Your task to perform on an android device: What's the weather going to be this weekend? Image 0: 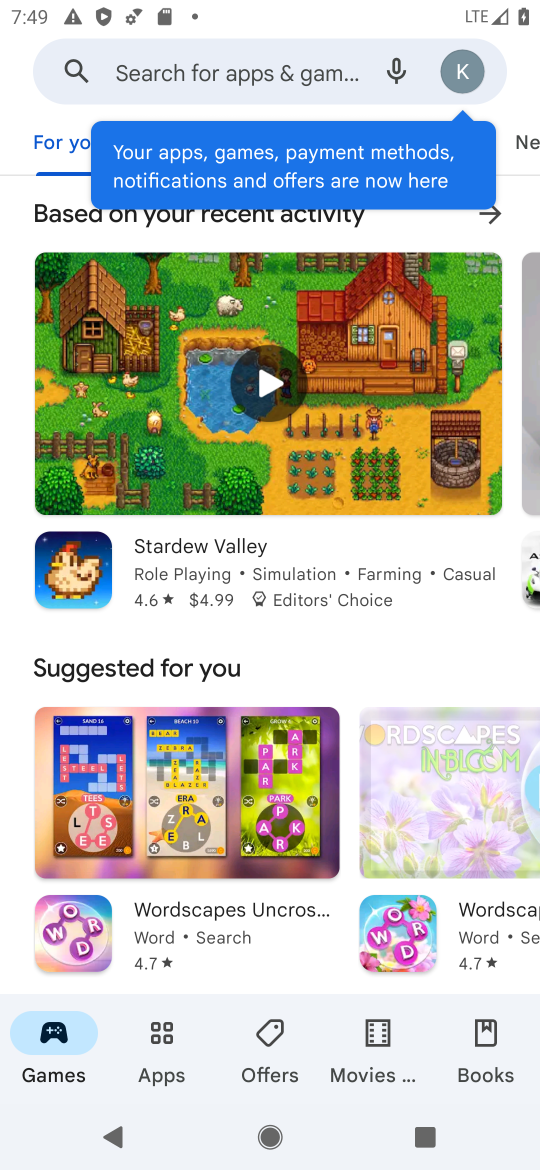
Step 0: press home button
Your task to perform on an android device: What's the weather going to be this weekend? Image 1: 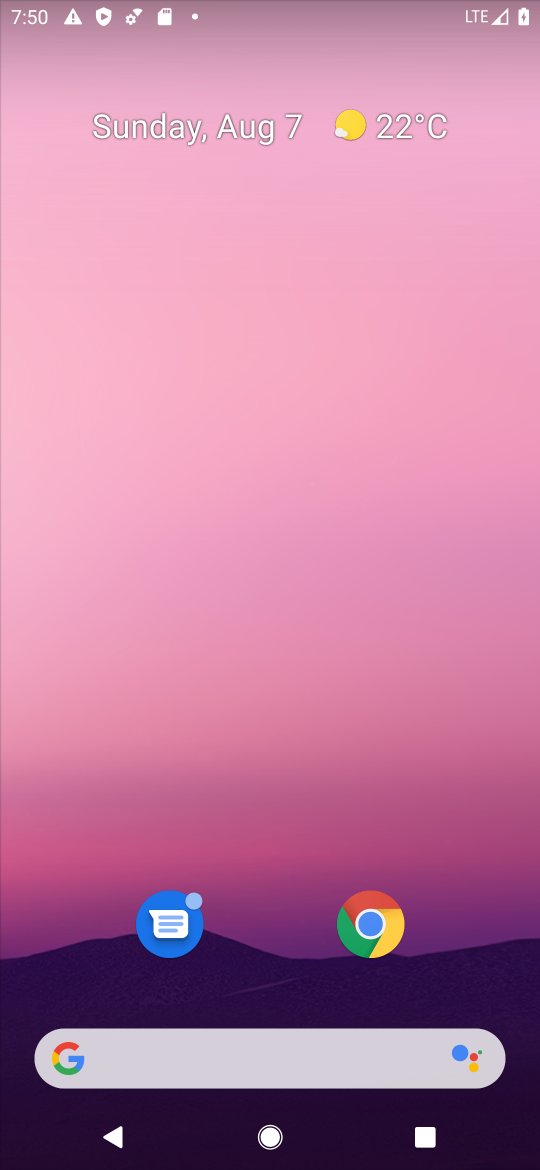
Step 1: click (384, 125)
Your task to perform on an android device: What's the weather going to be this weekend? Image 2: 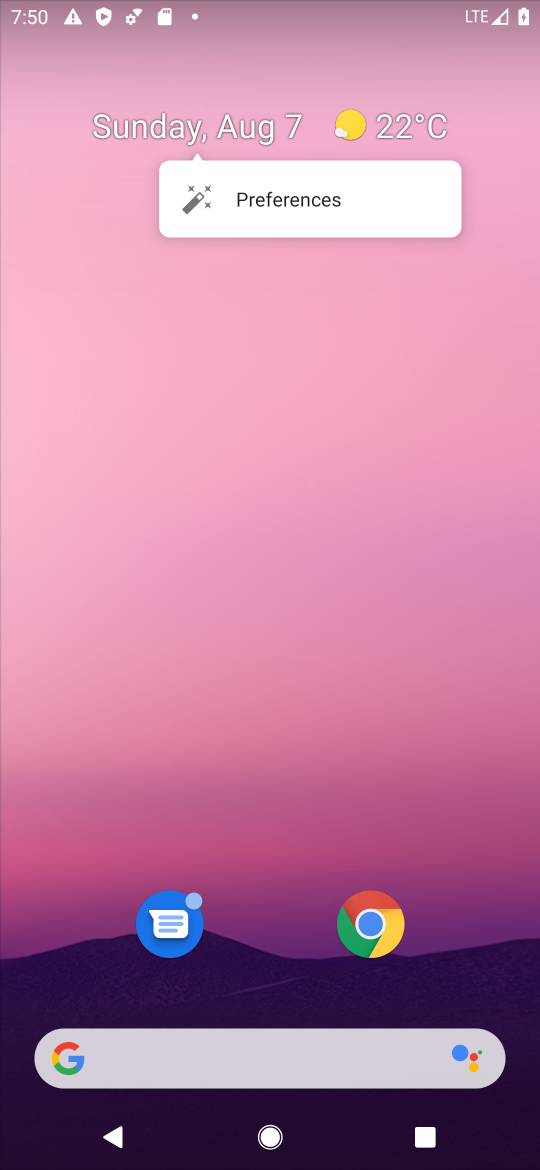
Step 2: click (384, 129)
Your task to perform on an android device: What's the weather going to be this weekend? Image 3: 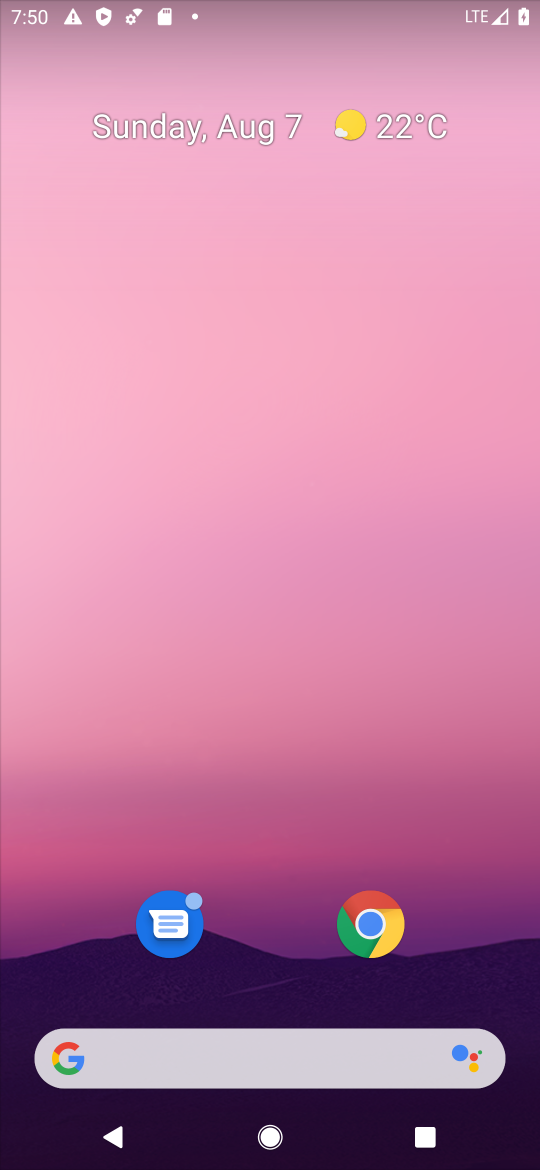
Step 3: click (395, 119)
Your task to perform on an android device: What's the weather going to be this weekend? Image 4: 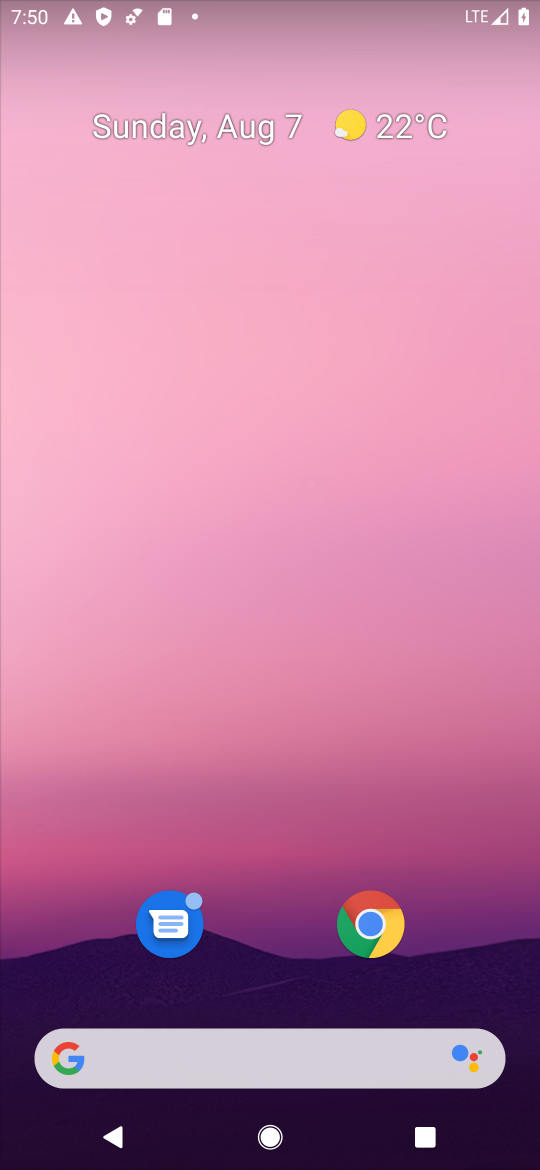
Step 4: click (198, 1050)
Your task to perform on an android device: What's the weather going to be this weekend? Image 5: 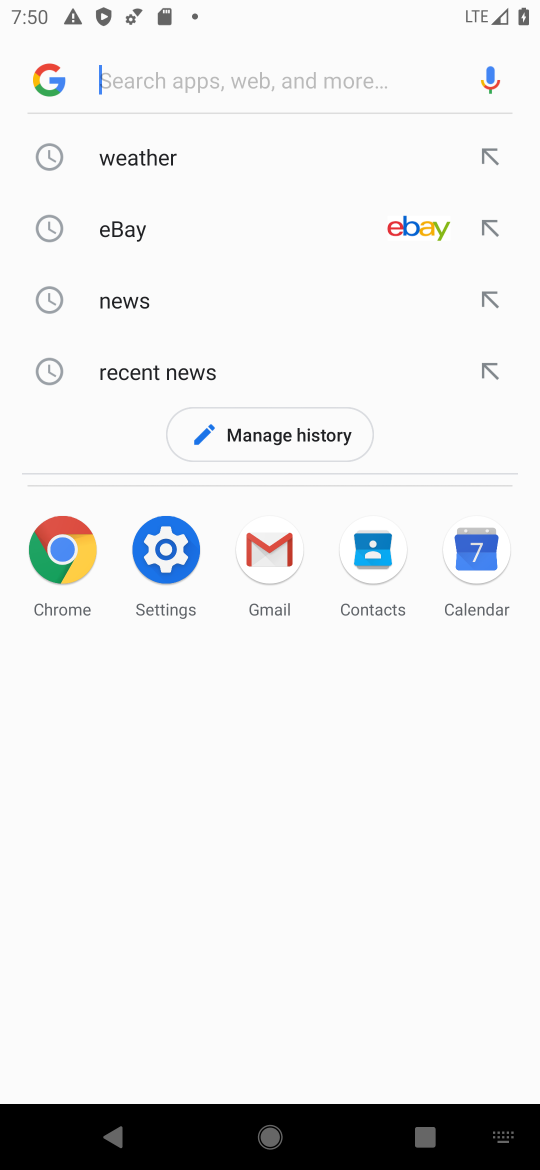
Step 5: click (161, 153)
Your task to perform on an android device: What's the weather going to be this weekend? Image 6: 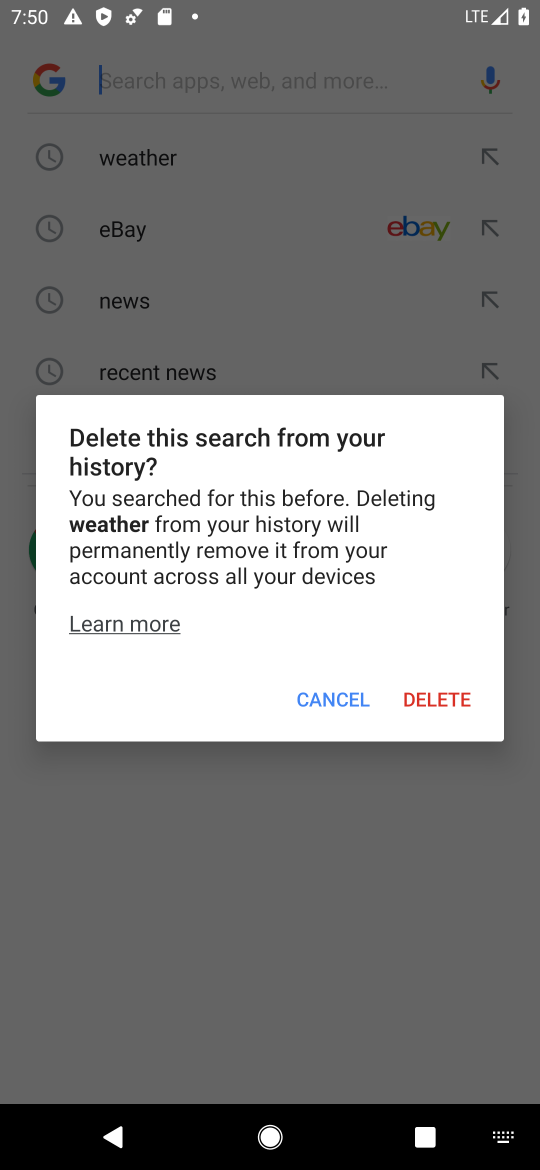
Step 6: click (339, 692)
Your task to perform on an android device: What's the weather going to be this weekend? Image 7: 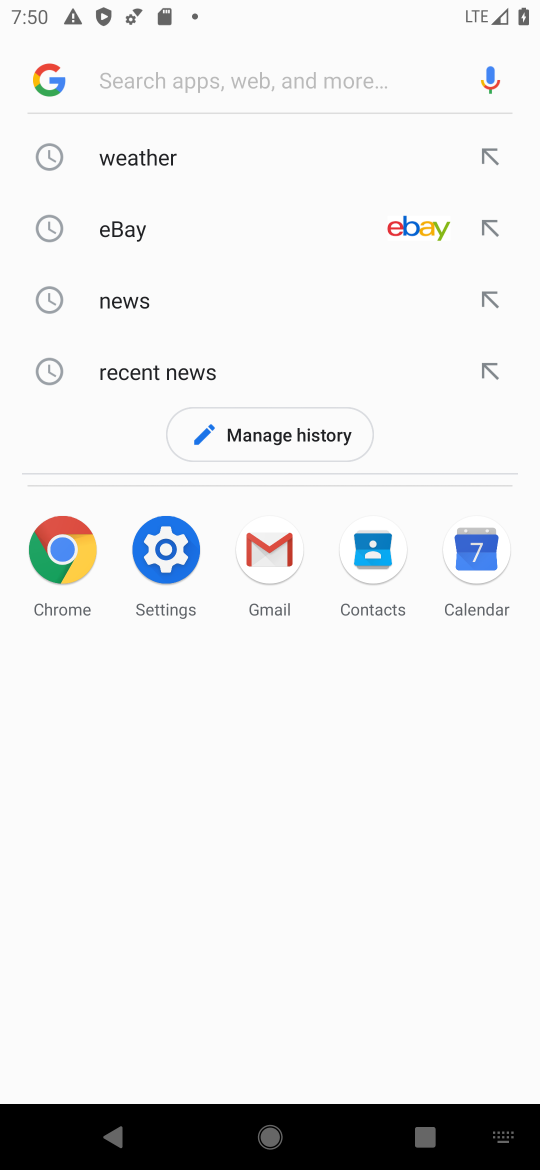
Step 7: click (283, 159)
Your task to perform on an android device: What's the weather going to be this weekend? Image 8: 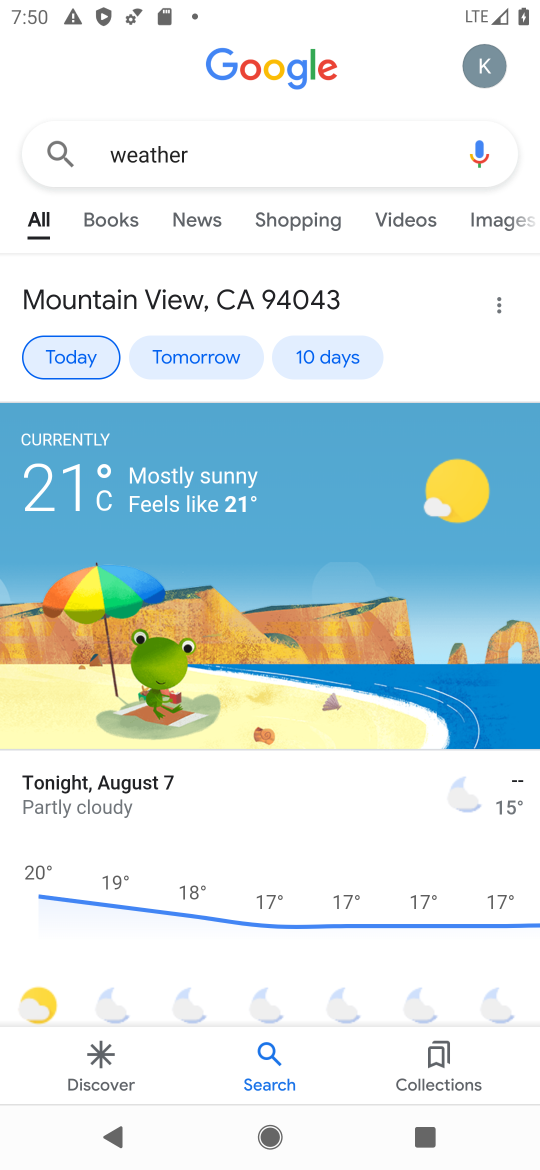
Step 8: click (309, 353)
Your task to perform on an android device: What's the weather going to be this weekend? Image 9: 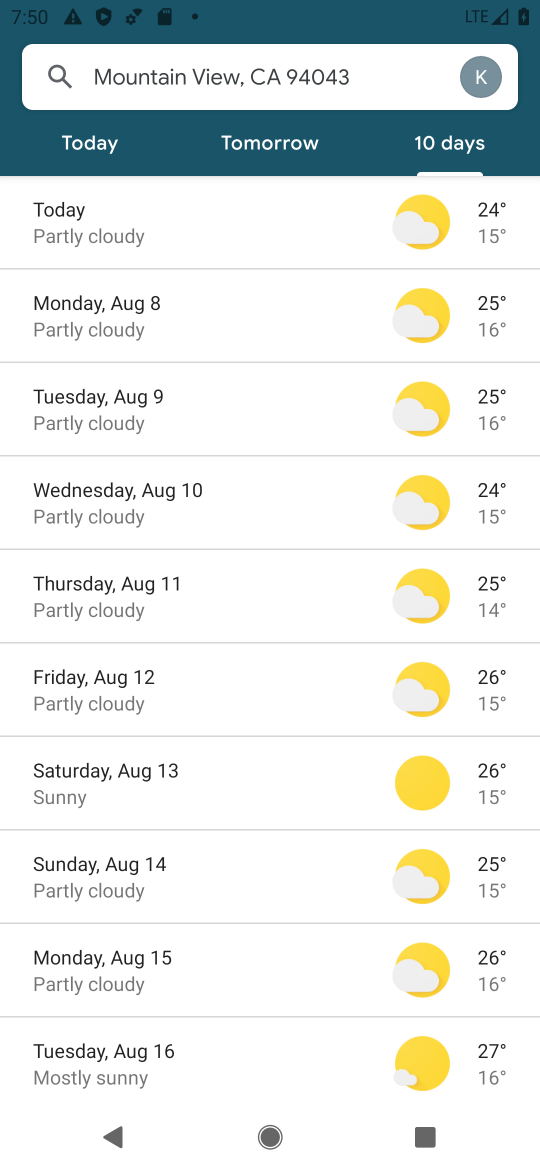
Step 9: click (194, 778)
Your task to perform on an android device: What's the weather going to be this weekend? Image 10: 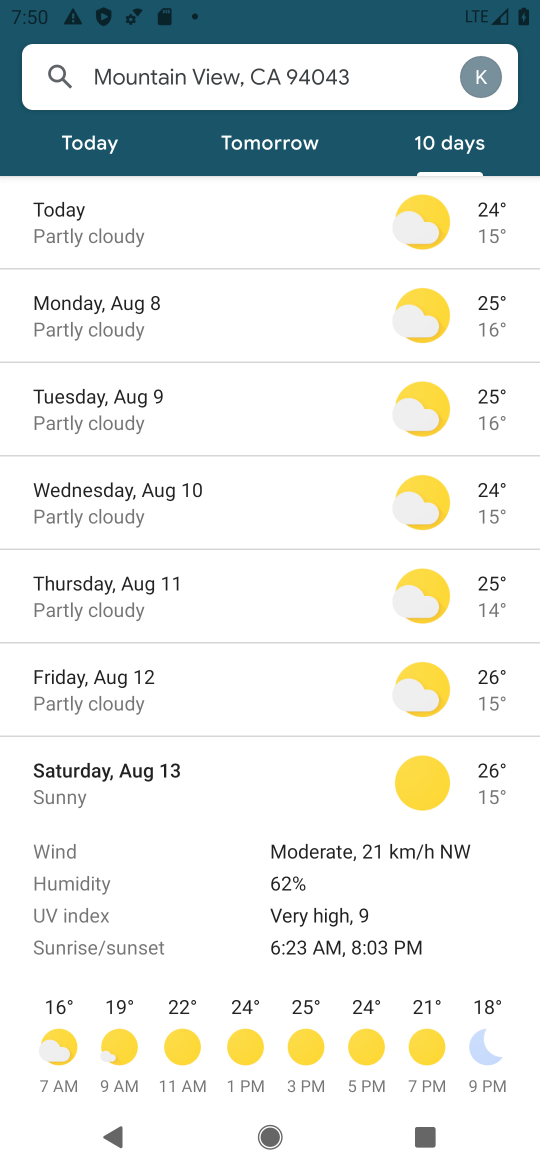
Step 10: click (194, 778)
Your task to perform on an android device: What's the weather going to be this weekend? Image 11: 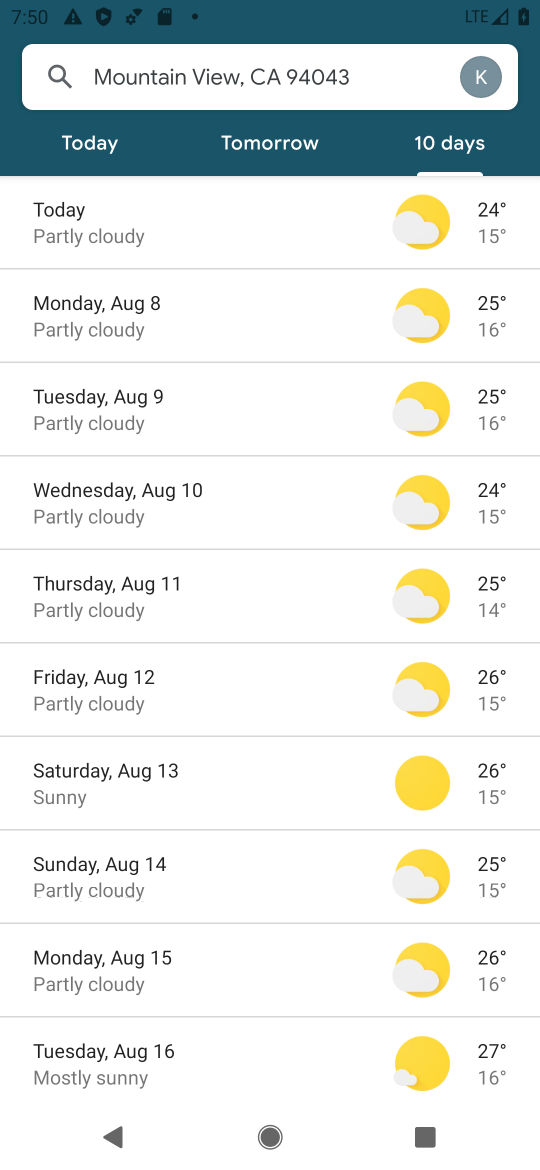
Step 11: click (251, 764)
Your task to perform on an android device: What's the weather going to be this weekend? Image 12: 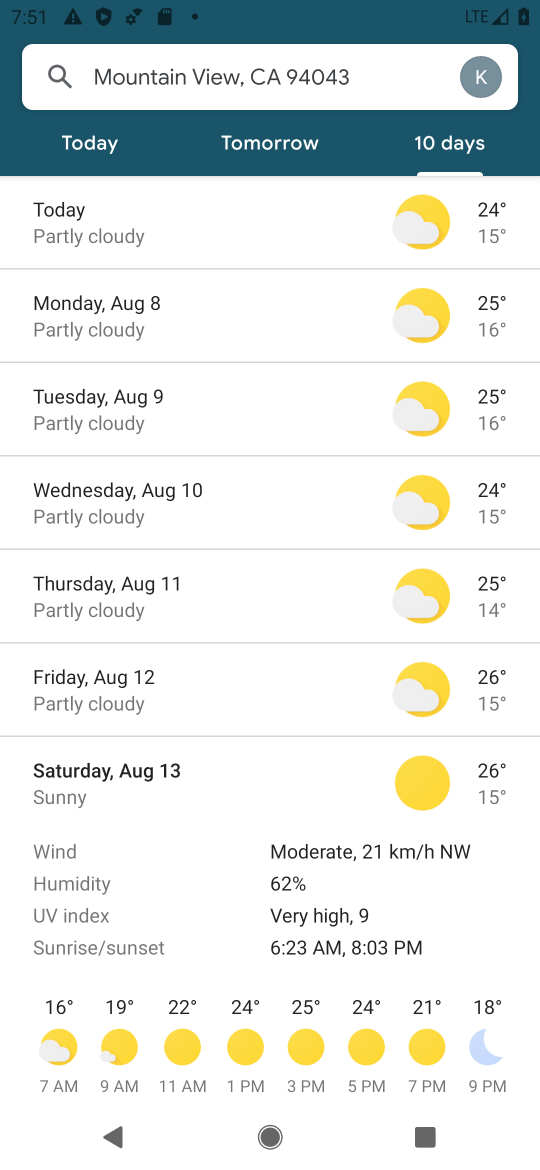
Step 12: task complete